Your task to perform on an android device: empty trash in google photos Image 0: 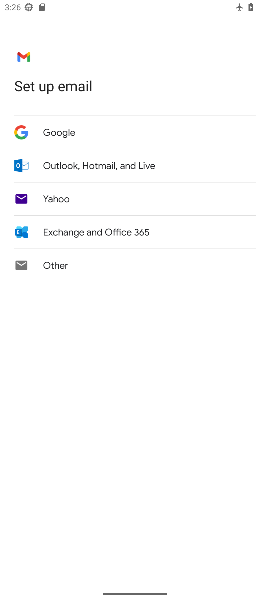
Step 0: press home button
Your task to perform on an android device: empty trash in google photos Image 1: 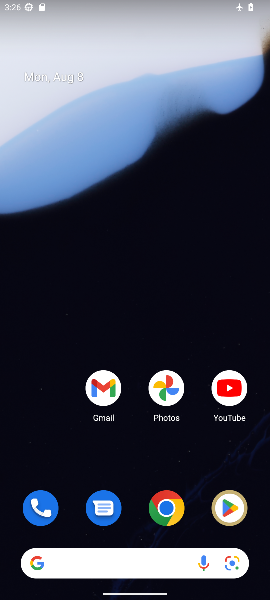
Step 1: click (166, 388)
Your task to perform on an android device: empty trash in google photos Image 2: 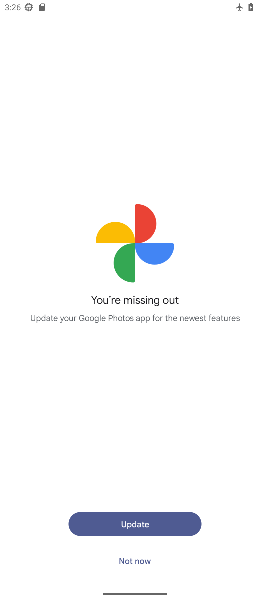
Step 2: click (125, 526)
Your task to perform on an android device: empty trash in google photos Image 3: 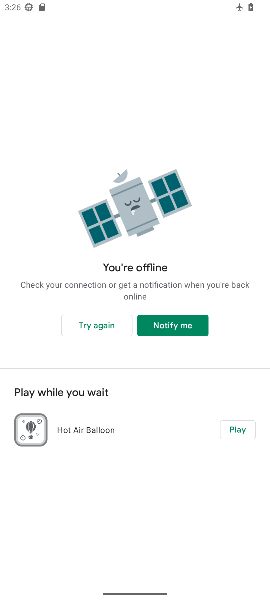
Step 3: click (94, 326)
Your task to perform on an android device: empty trash in google photos Image 4: 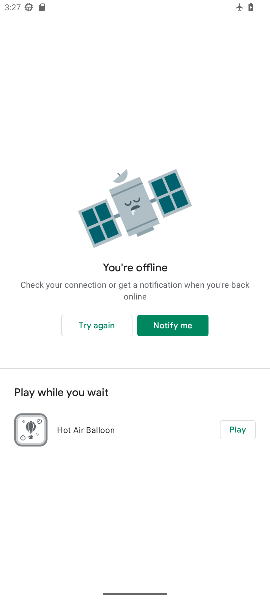
Step 4: task complete